Your task to perform on an android device: open app "TextNow: Call + Text Unlimited" (install if not already installed), go to login, and select forgot password Image 0: 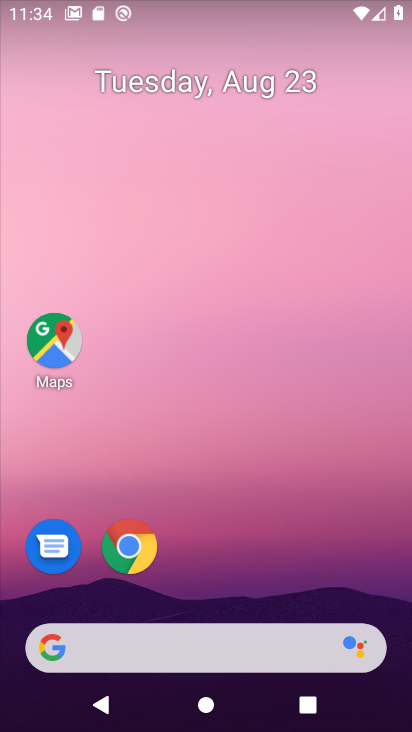
Step 0: drag from (189, 589) to (171, 228)
Your task to perform on an android device: open app "TextNow: Call + Text Unlimited" (install if not already installed), go to login, and select forgot password Image 1: 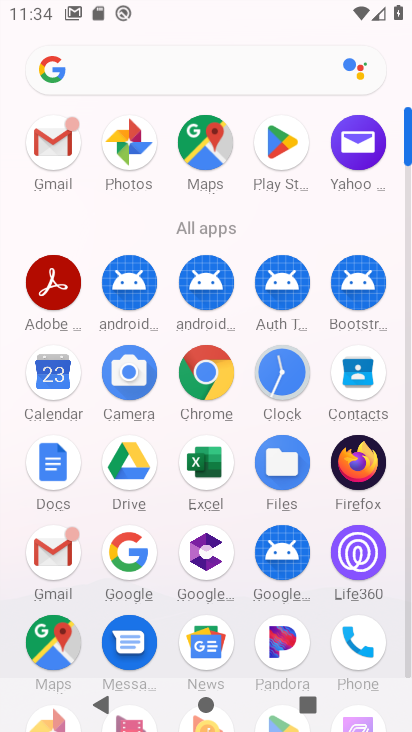
Step 1: click (282, 132)
Your task to perform on an android device: open app "TextNow: Call + Text Unlimited" (install if not already installed), go to login, and select forgot password Image 2: 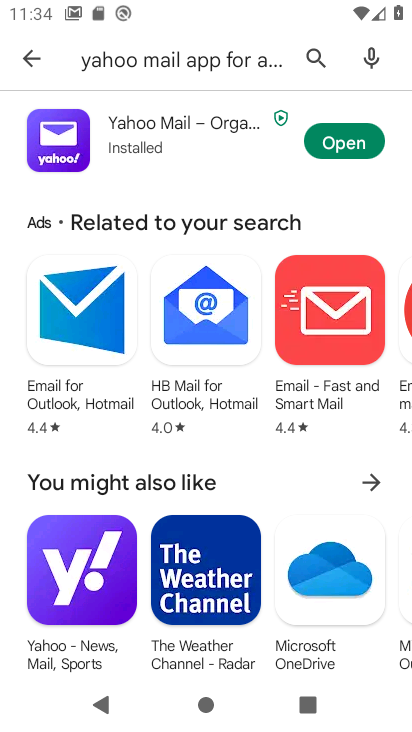
Step 2: click (20, 56)
Your task to perform on an android device: open app "TextNow: Call + Text Unlimited" (install if not already installed), go to login, and select forgot password Image 3: 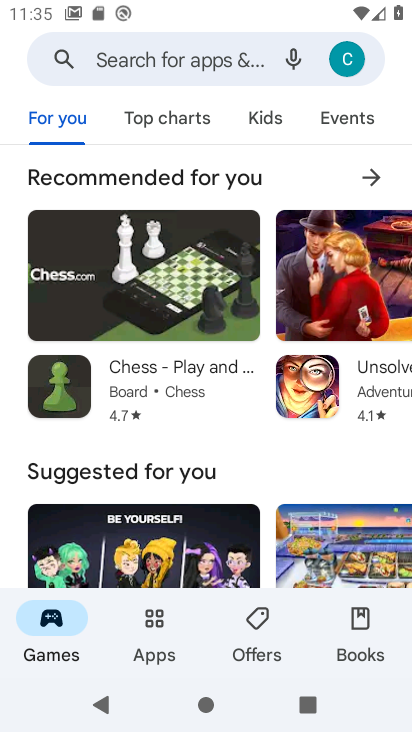
Step 3: click (188, 61)
Your task to perform on an android device: open app "TextNow: Call + Text Unlimited" (install if not already installed), go to login, and select forgot password Image 4: 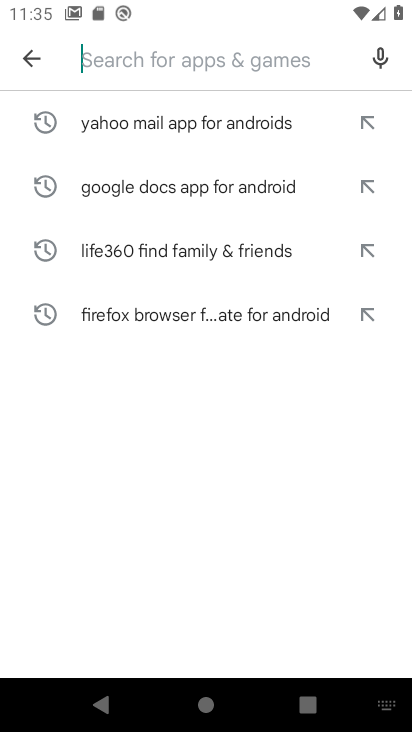
Step 4: type "TextNow: Call + Text Unlimited "
Your task to perform on an android device: open app "TextNow: Call + Text Unlimited" (install if not already installed), go to login, and select forgot password Image 5: 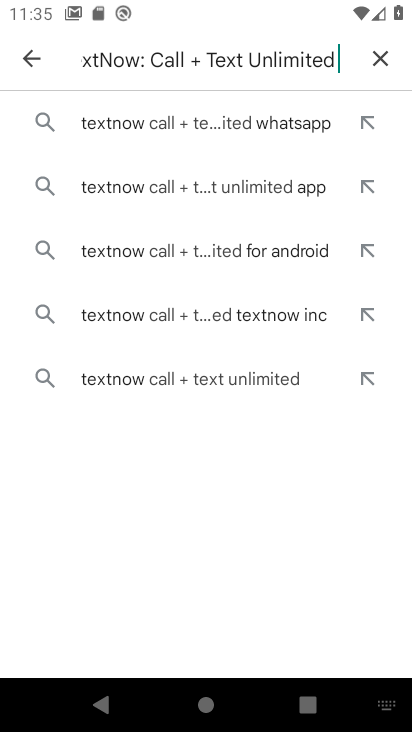
Step 5: click (171, 113)
Your task to perform on an android device: open app "TextNow: Call + Text Unlimited" (install if not already installed), go to login, and select forgot password Image 6: 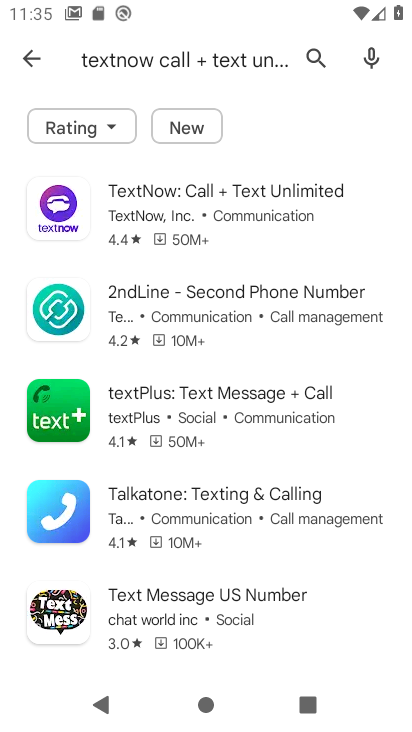
Step 6: click (167, 186)
Your task to perform on an android device: open app "TextNow: Call + Text Unlimited" (install if not already installed), go to login, and select forgot password Image 7: 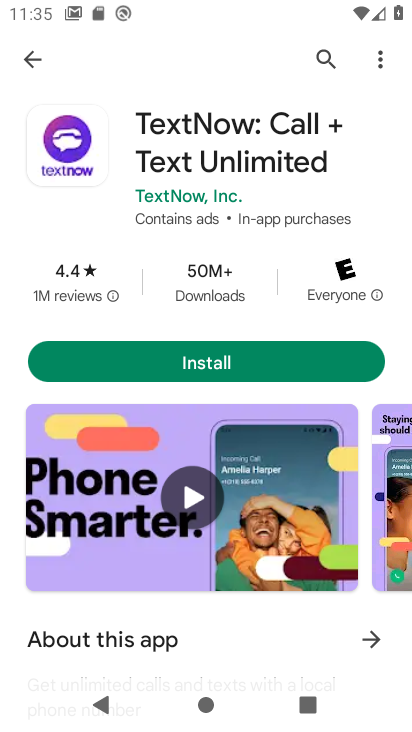
Step 7: click (207, 355)
Your task to perform on an android device: open app "TextNow: Call + Text Unlimited" (install if not already installed), go to login, and select forgot password Image 8: 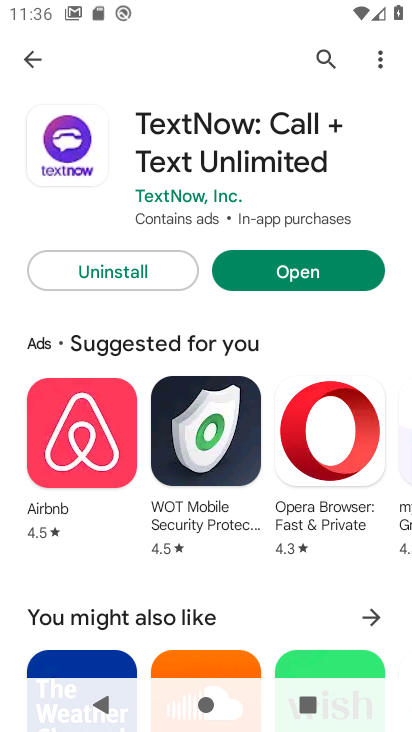
Step 8: task complete